Your task to perform on an android device: open app "VLC for Android" Image 0: 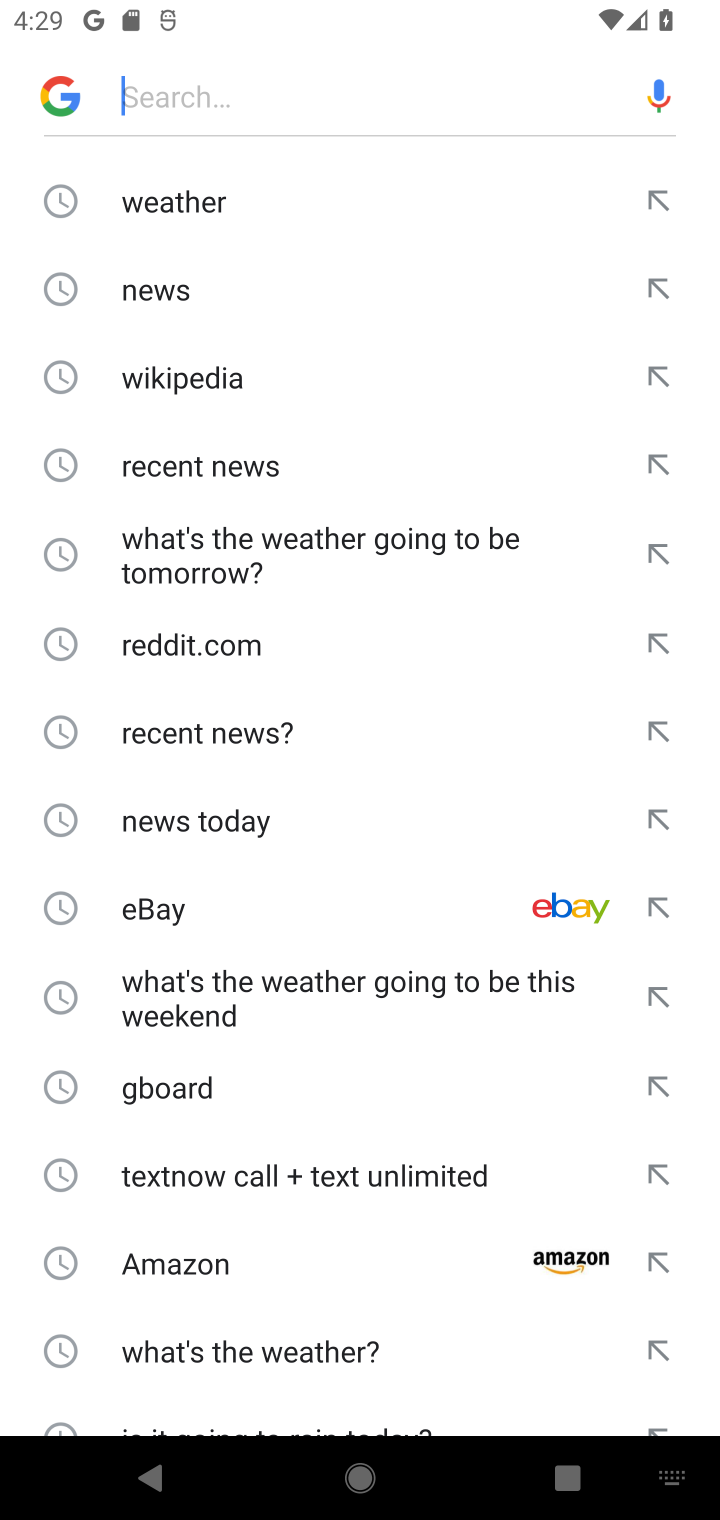
Step 0: press home button
Your task to perform on an android device: open app "VLC for Android" Image 1: 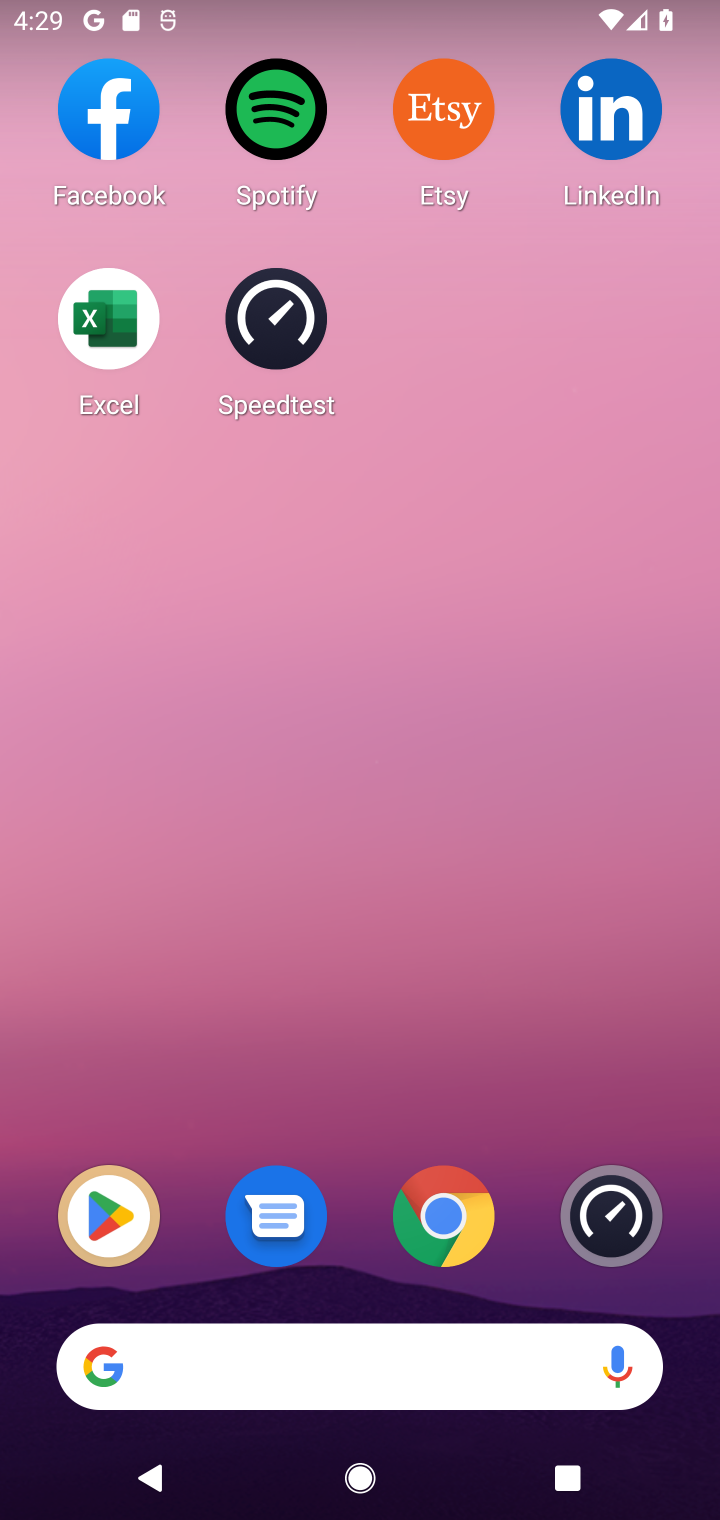
Step 1: click (74, 1216)
Your task to perform on an android device: open app "VLC for Android" Image 2: 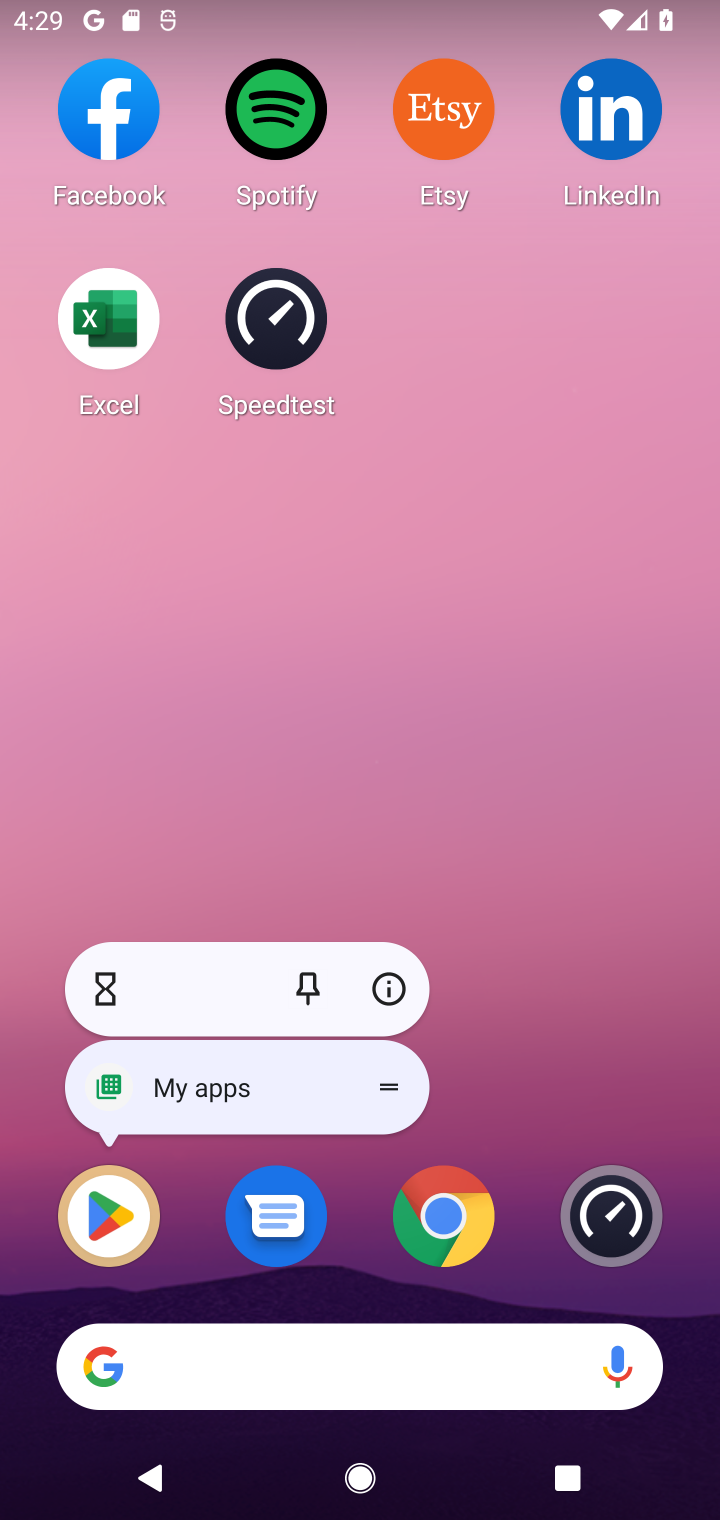
Step 2: click (113, 1229)
Your task to perform on an android device: open app "VLC for Android" Image 3: 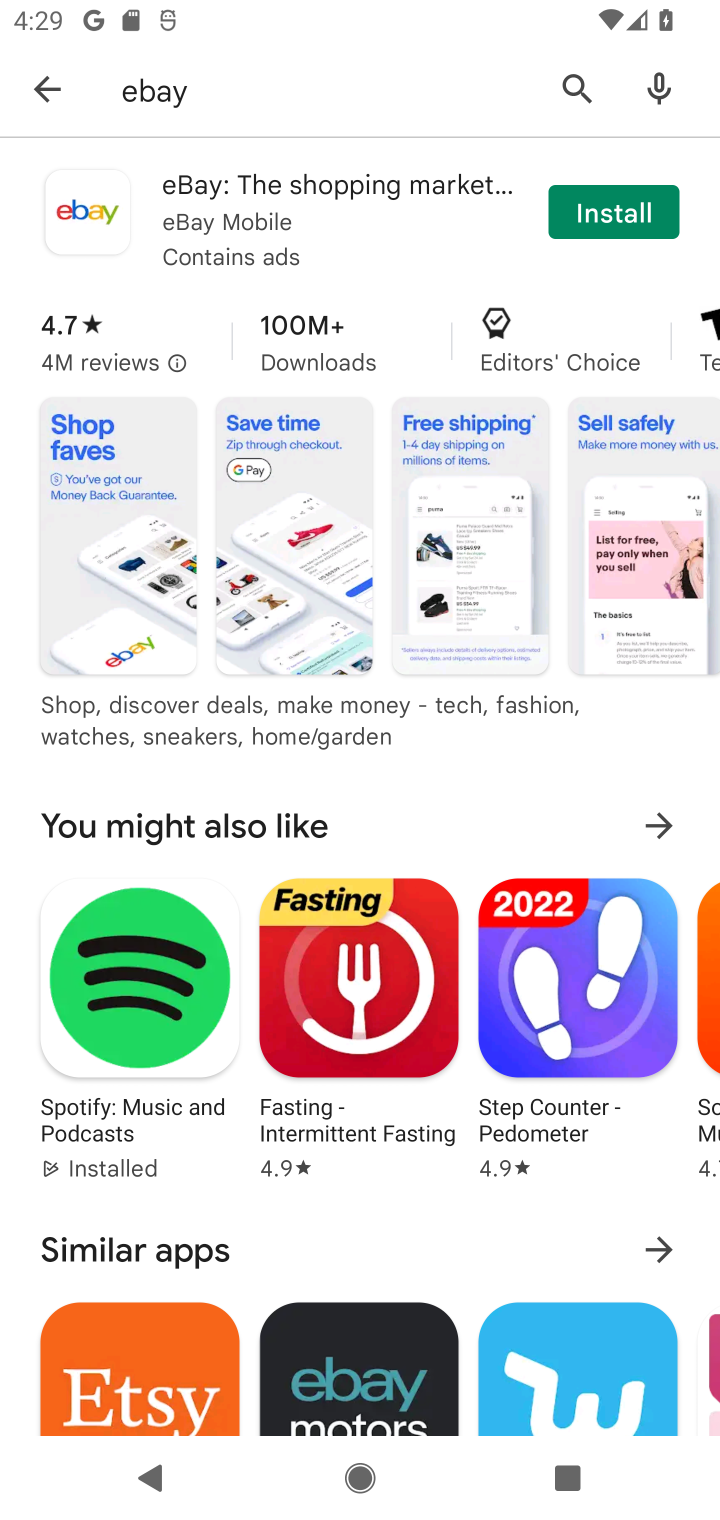
Step 3: click (579, 73)
Your task to perform on an android device: open app "VLC for Android" Image 4: 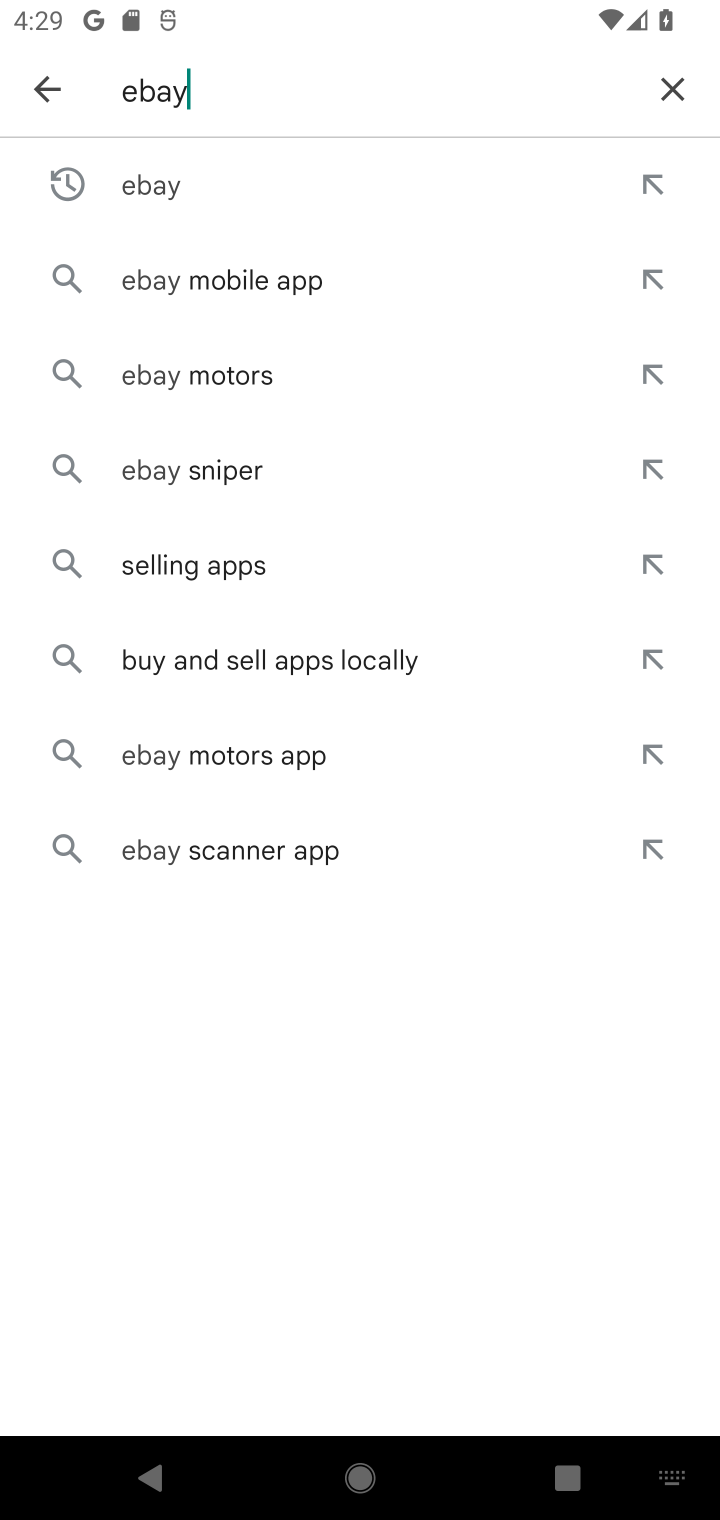
Step 4: click (676, 78)
Your task to perform on an android device: open app "VLC for Android" Image 5: 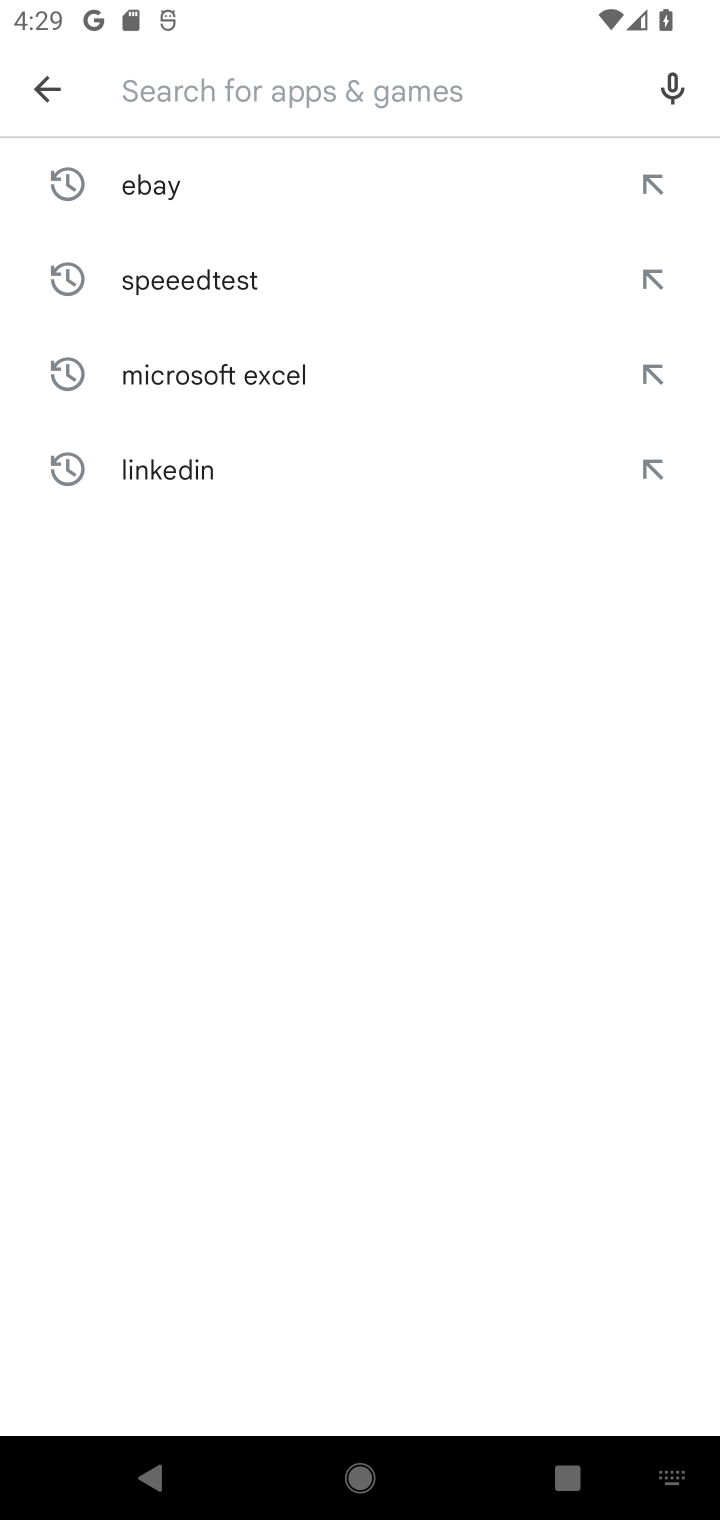
Step 5: type "vlc"
Your task to perform on an android device: open app "VLC for Android" Image 6: 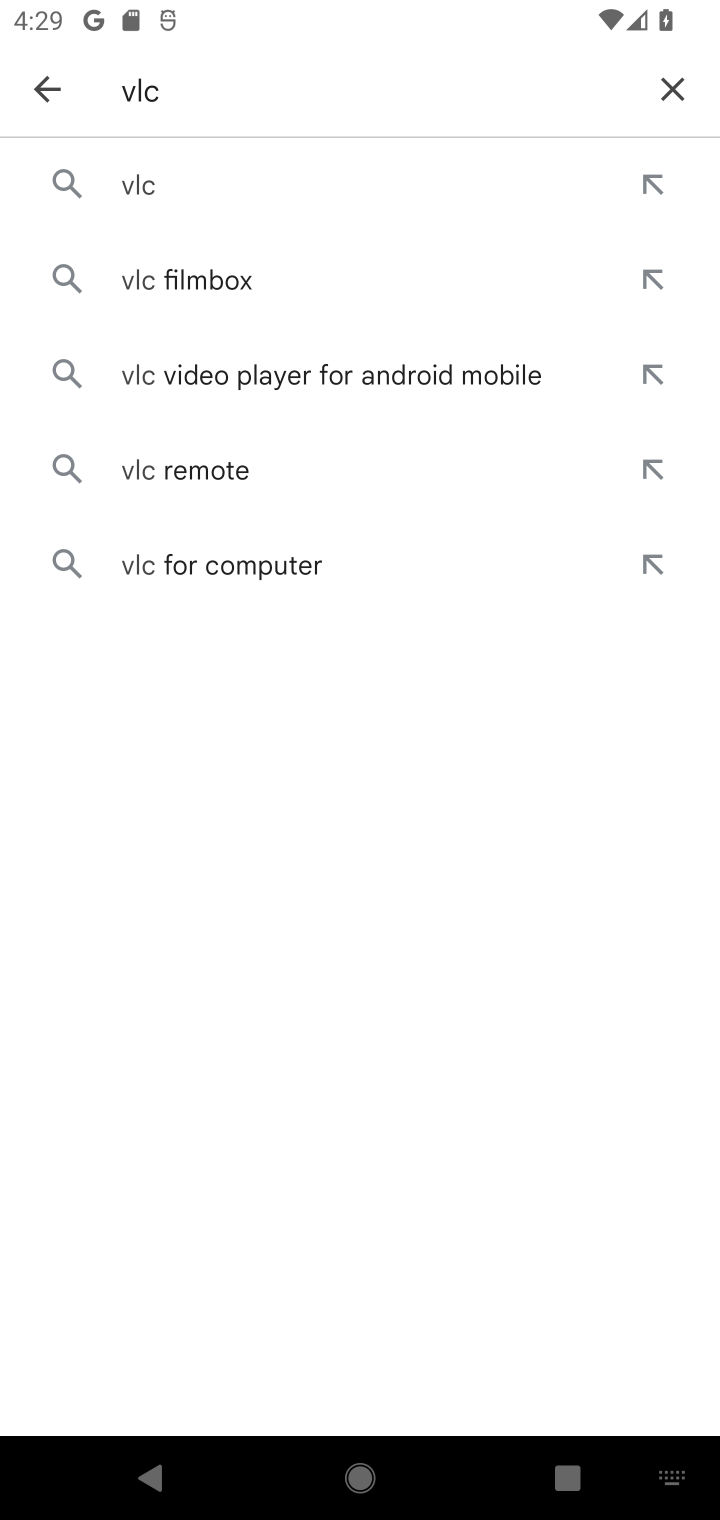
Step 6: click (430, 196)
Your task to perform on an android device: open app "VLC for Android" Image 7: 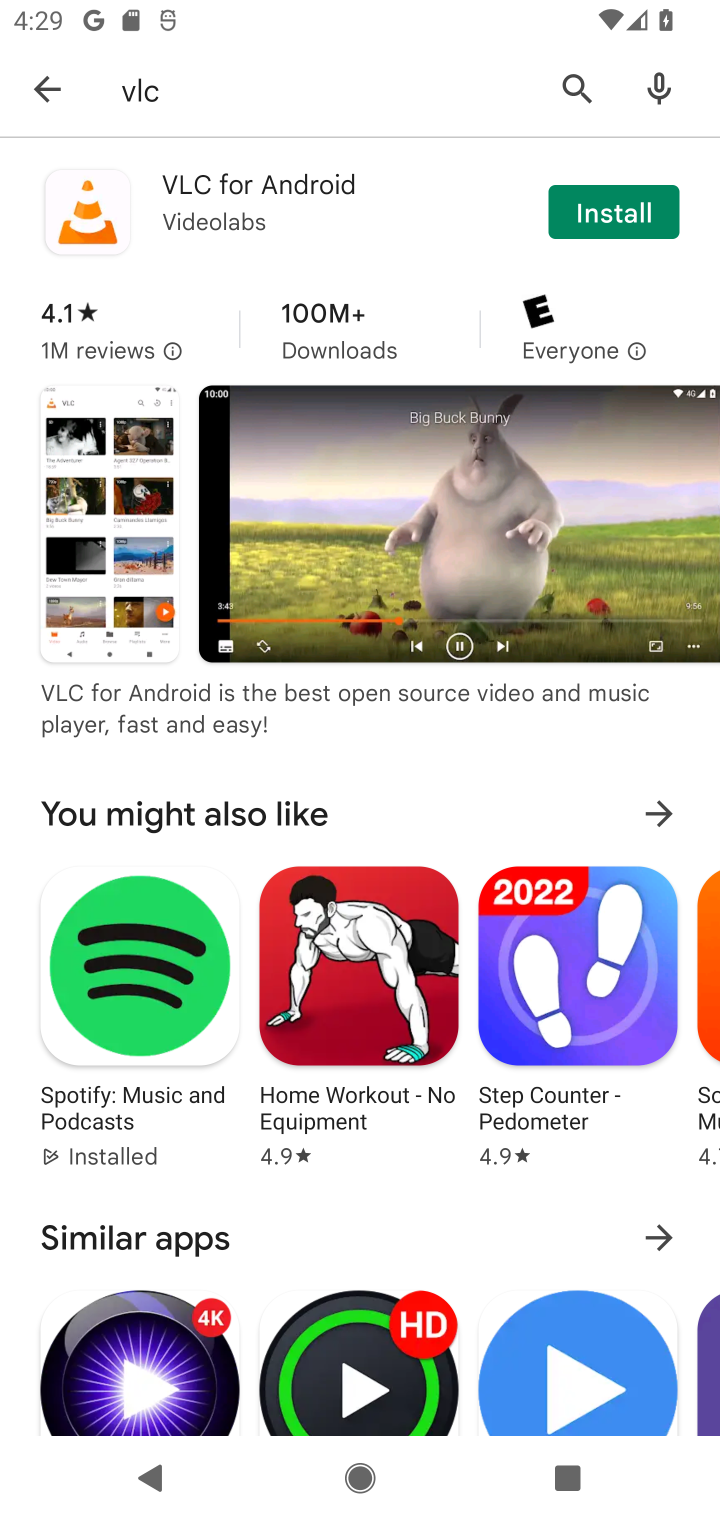
Step 7: click (593, 212)
Your task to perform on an android device: open app "VLC for Android" Image 8: 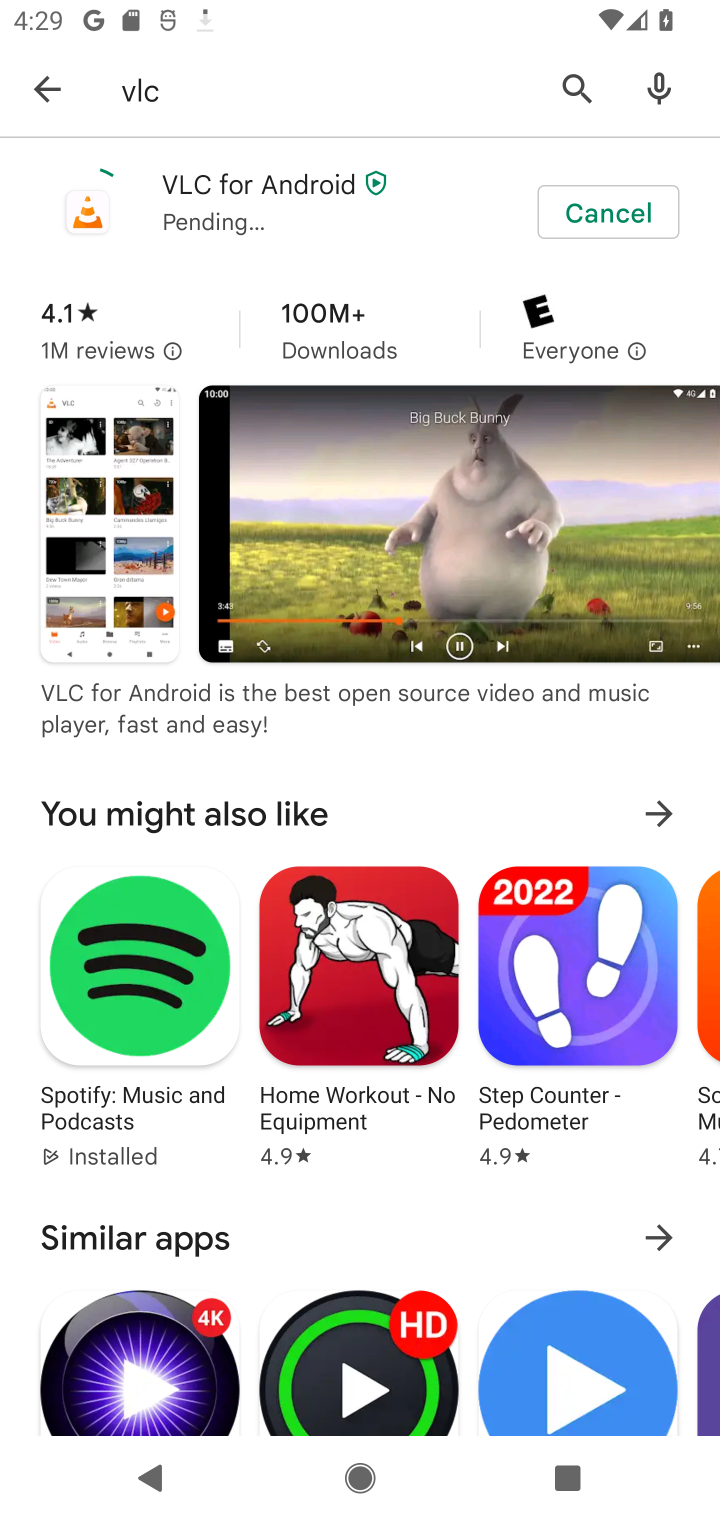
Step 8: task complete